Your task to perform on an android device: see sites visited before in the chrome app Image 0: 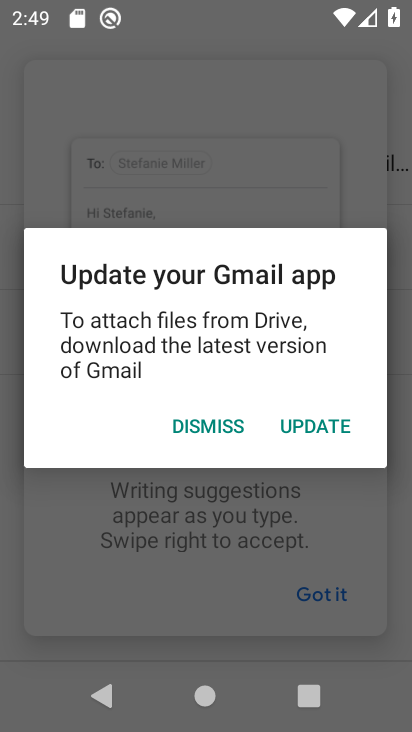
Step 0: press home button
Your task to perform on an android device: see sites visited before in the chrome app Image 1: 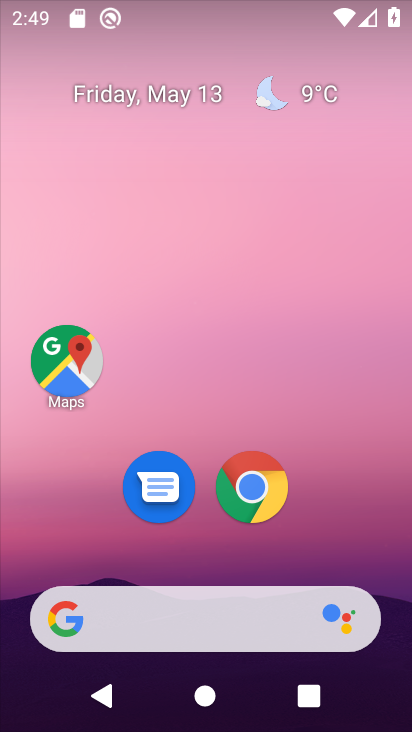
Step 1: click (226, 492)
Your task to perform on an android device: see sites visited before in the chrome app Image 2: 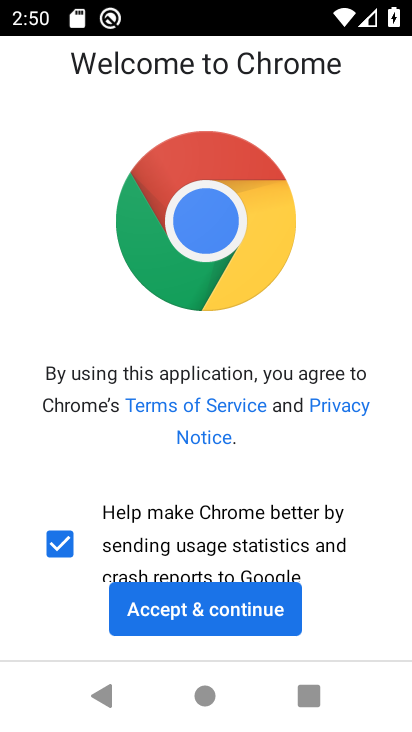
Step 2: click (209, 626)
Your task to perform on an android device: see sites visited before in the chrome app Image 3: 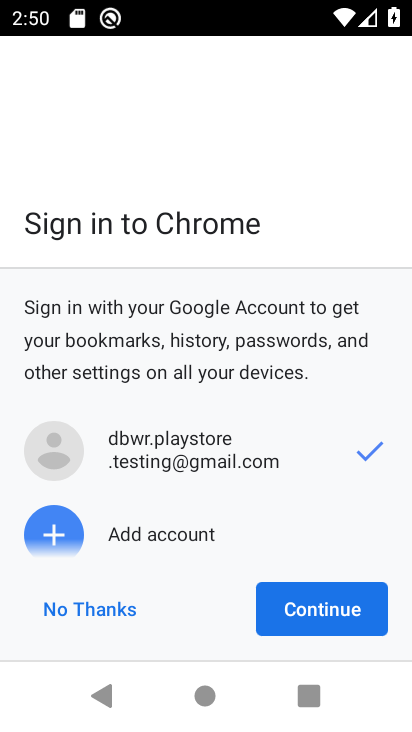
Step 3: click (285, 621)
Your task to perform on an android device: see sites visited before in the chrome app Image 4: 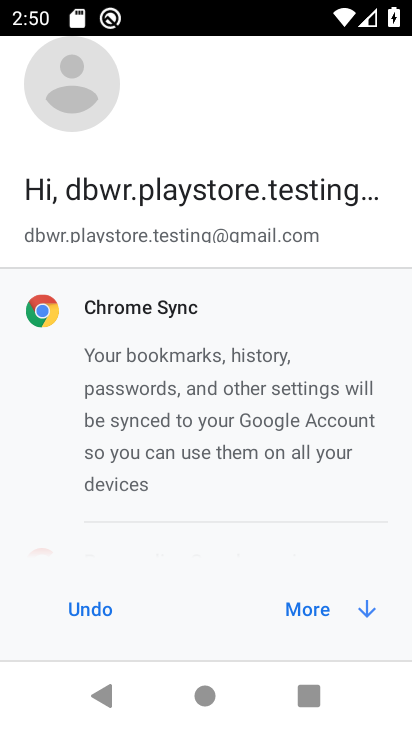
Step 4: click (285, 621)
Your task to perform on an android device: see sites visited before in the chrome app Image 5: 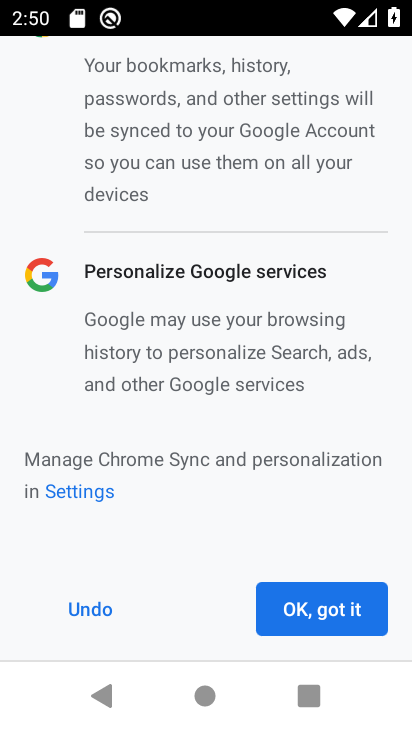
Step 5: click (285, 621)
Your task to perform on an android device: see sites visited before in the chrome app Image 6: 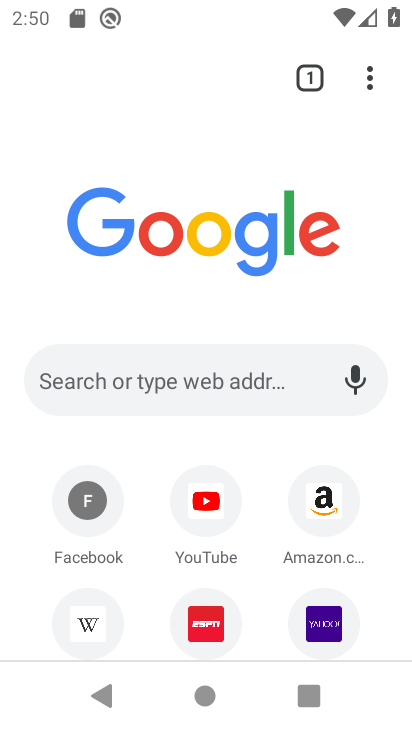
Step 6: task complete